Your task to perform on an android device: check out phone information Image 0: 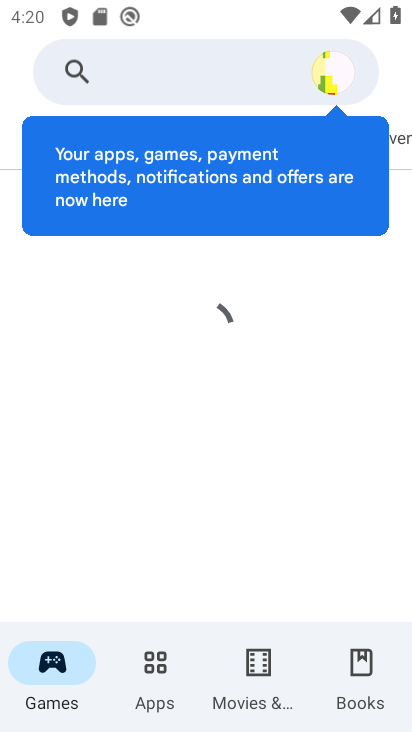
Step 0: press home button
Your task to perform on an android device: check out phone information Image 1: 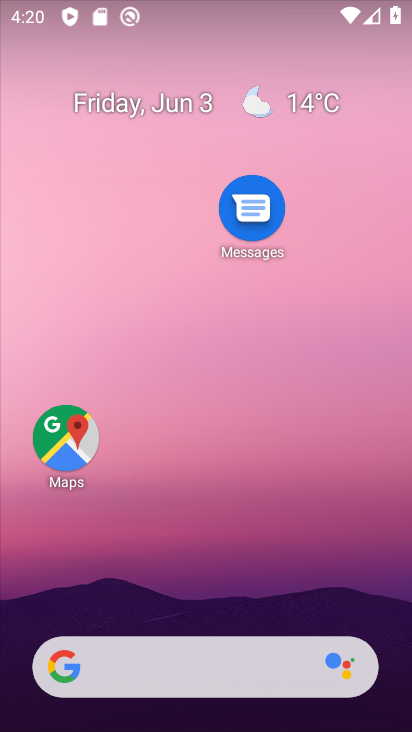
Step 1: drag from (226, 603) to (214, 163)
Your task to perform on an android device: check out phone information Image 2: 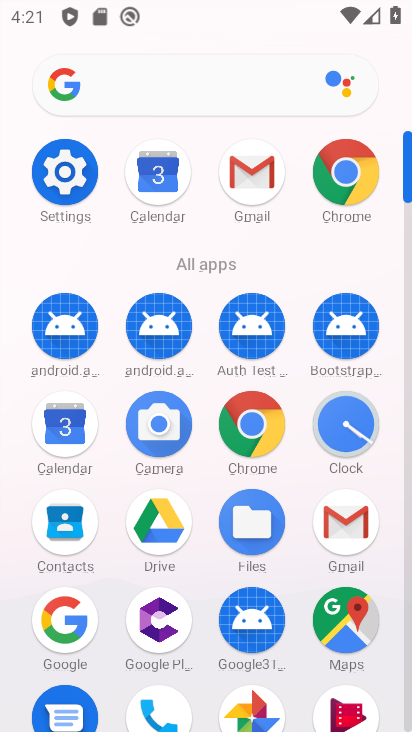
Step 2: click (53, 179)
Your task to perform on an android device: check out phone information Image 3: 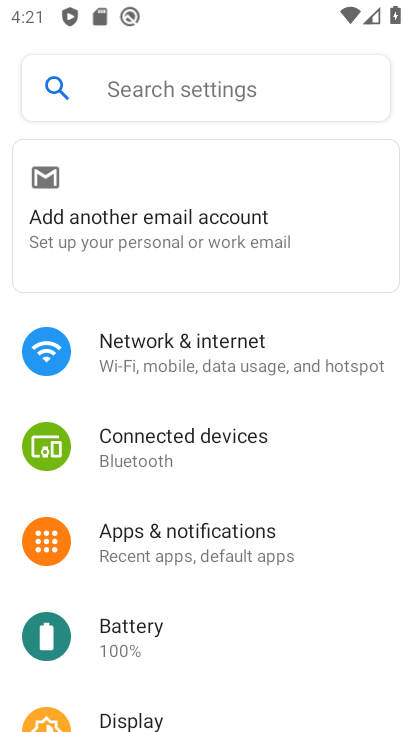
Step 3: drag from (175, 481) to (220, 165)
Your task to perform on an android device: check out phone information Image 4: 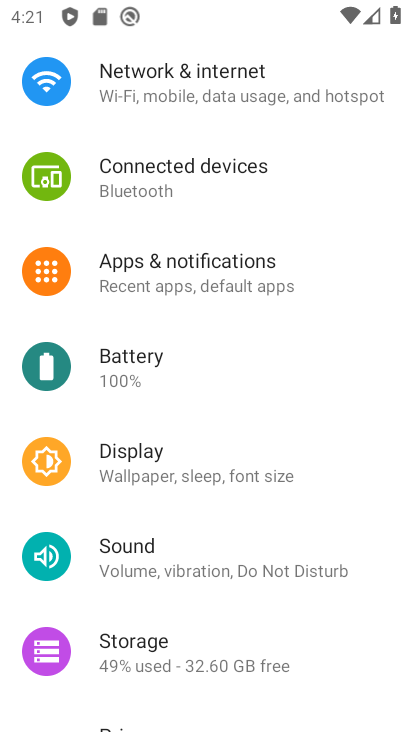
Step 4: drag from (235, 416) to (274, 123)
Your task to perform on an android device: check out phone information Image 5: 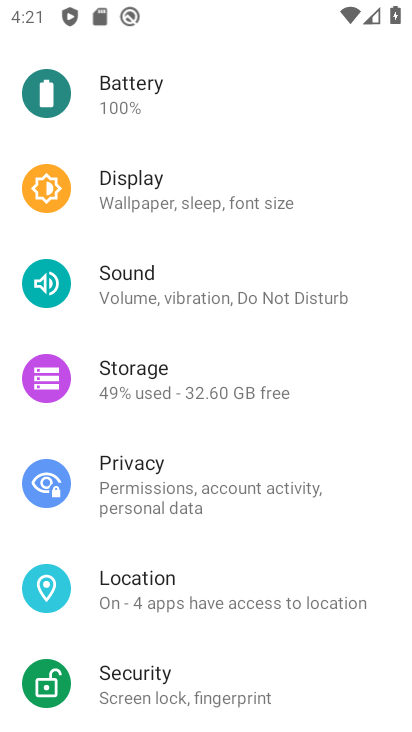
Step 5: drag from (264, 378) to (288, 24)
Your task to perform on an android device: check out phone information Image 6: 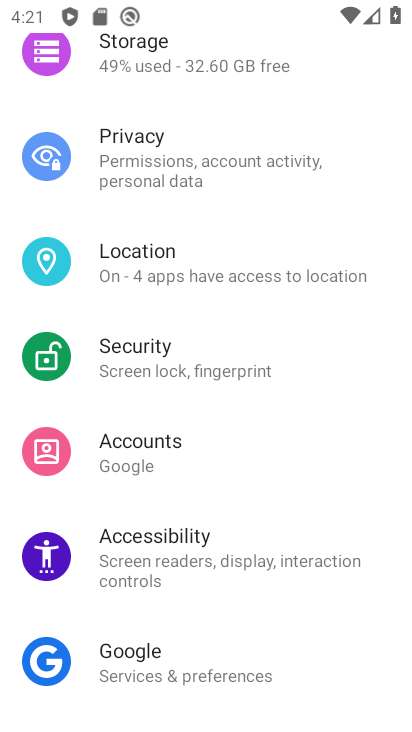
Step 6: drag from (201, 538) to (219, 264)
Your task to perform on an android device: check out phone information Image 7: 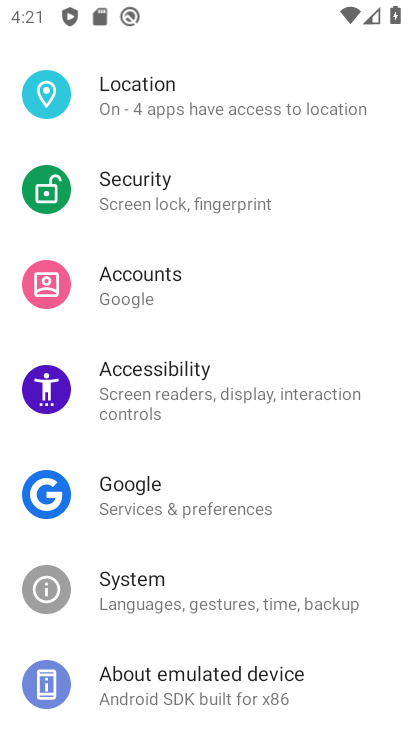
Step 7: click (199, 676)
Your task to perform on an android device: check out phone information Image 8: 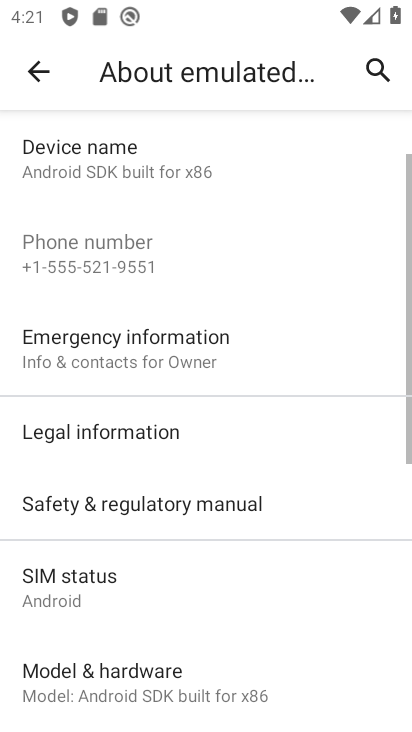
Step 8: task complete